Your task to perform on an android device: change the clock display to analog Image 0: 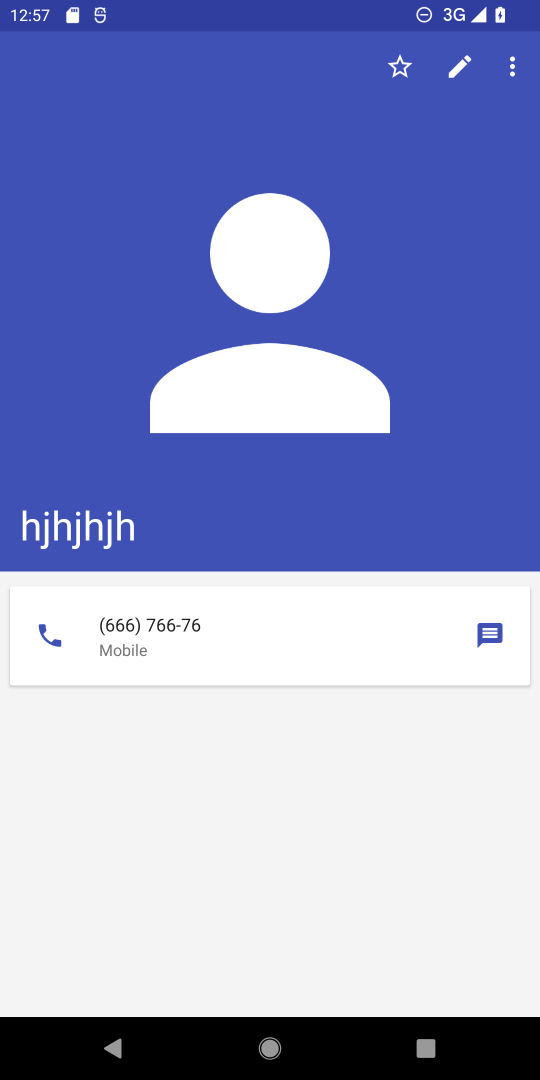
Step 0: press home button
Your task to perform on an android device: change the clock display to analog Image 1: 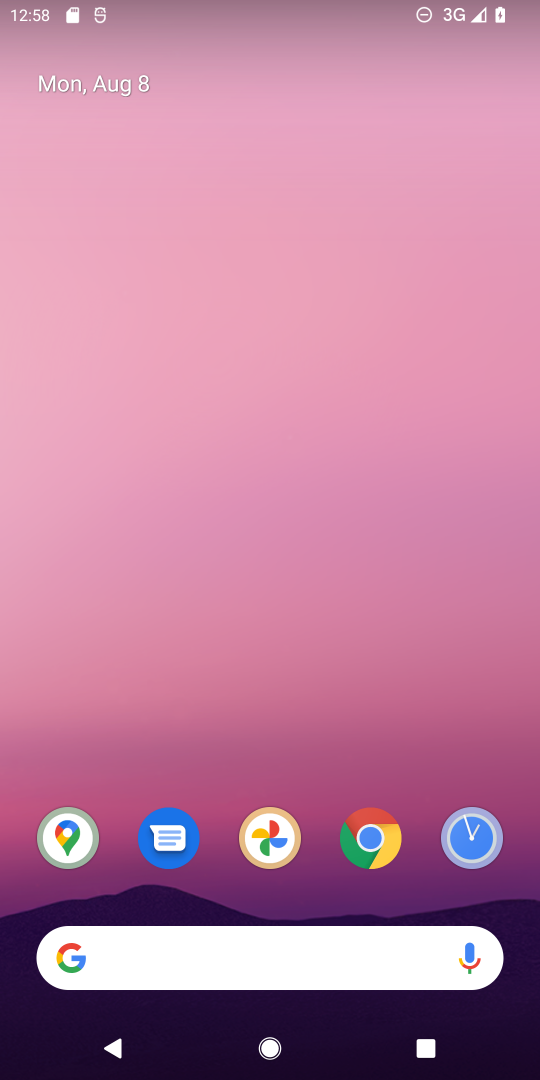
Step 1: drag from (225, 866) to (225, 2)
Your task to perform on an android device: change the clock display to analog Image 2: 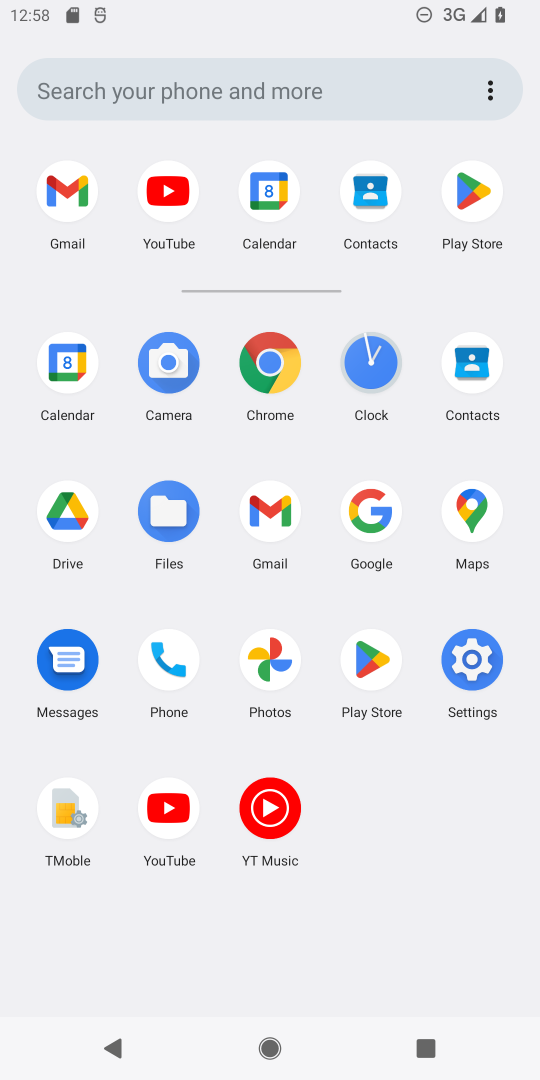
Step 2: click (380, 367)
Your task to perform on an android device: change the clock display to analog Image 3: 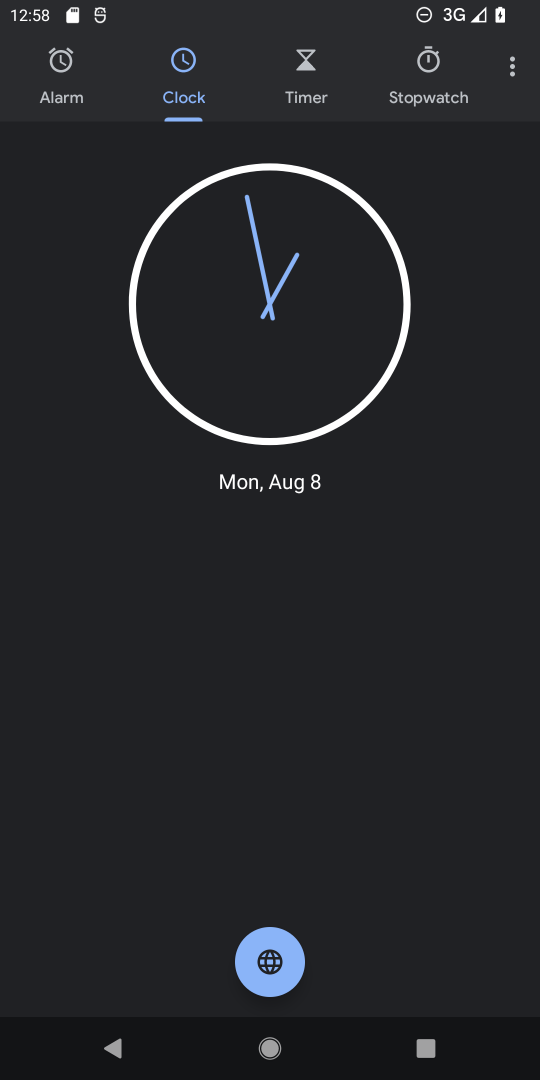
Step 3: click (507, 74)
Your task to perform on an android device: change the clock display to analog Image 4: 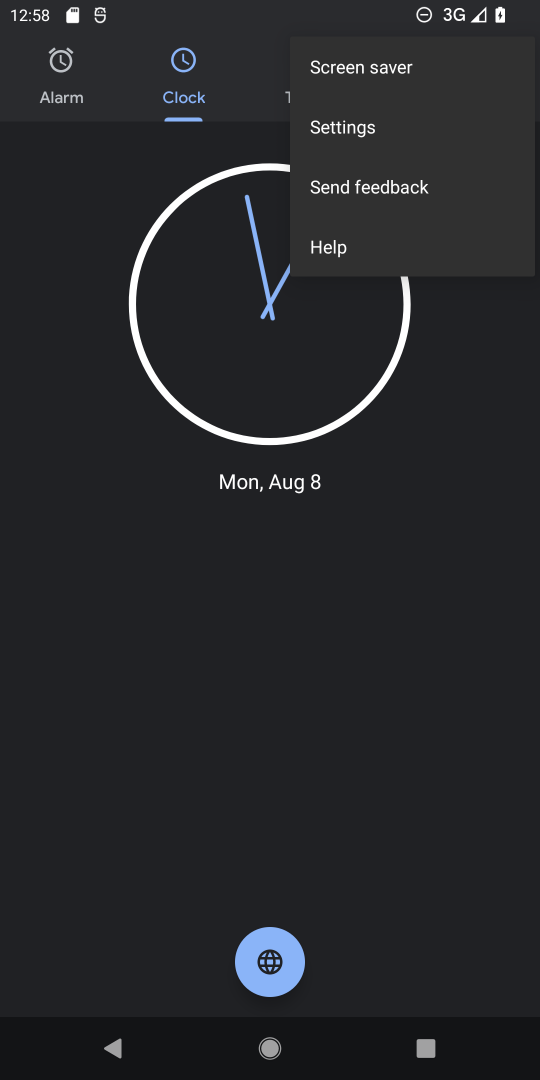
Step 4: click (332, 128)
Your task to perform on an android device: change the clock display to analog Image 5: 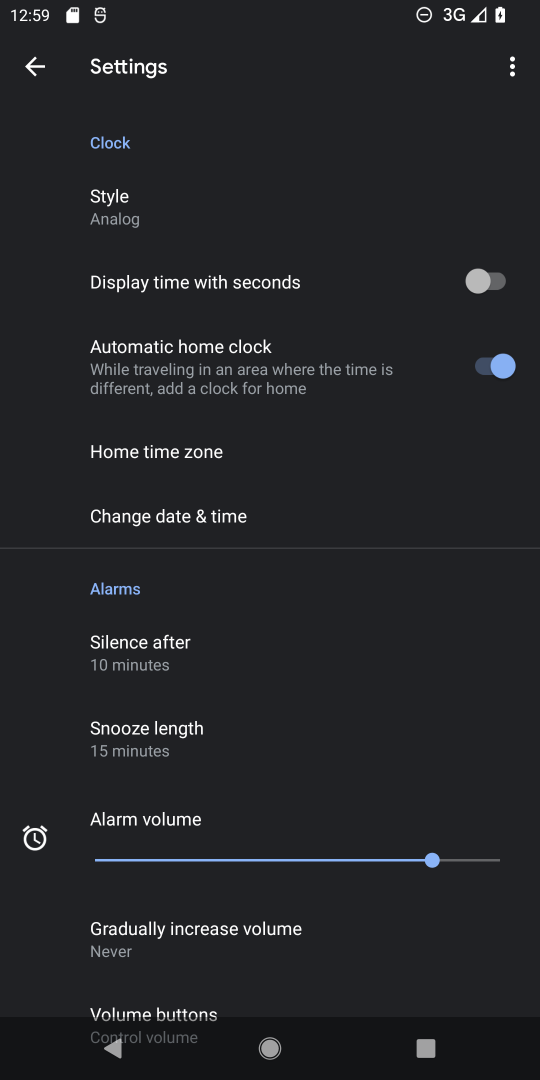
Step 5: click (118, 214)
Your task to perform on an android device: change the clock display to analog Image 6: 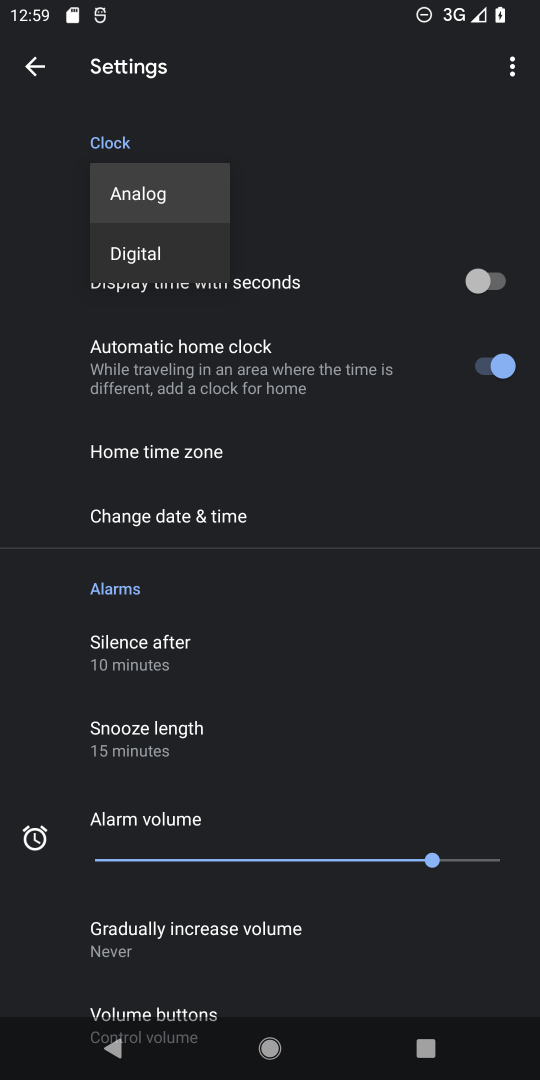
Step 6: task complete